Your task to perform on an android device: turn pop-ups off in chrome Image 0: 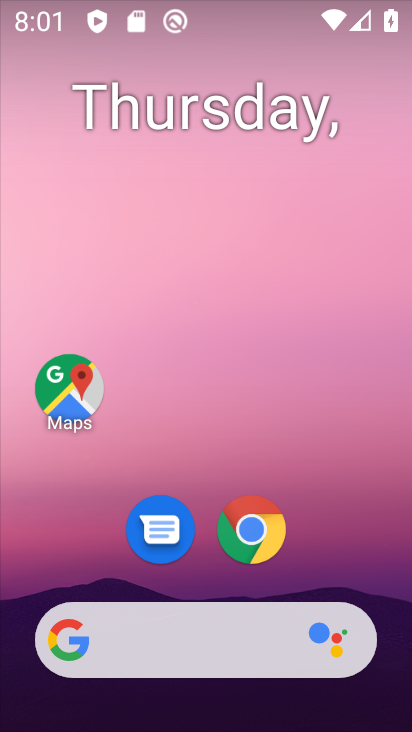
Step 0: press home button
Your task to perform on an android device: turn pop-ups off in chrome Image 1: 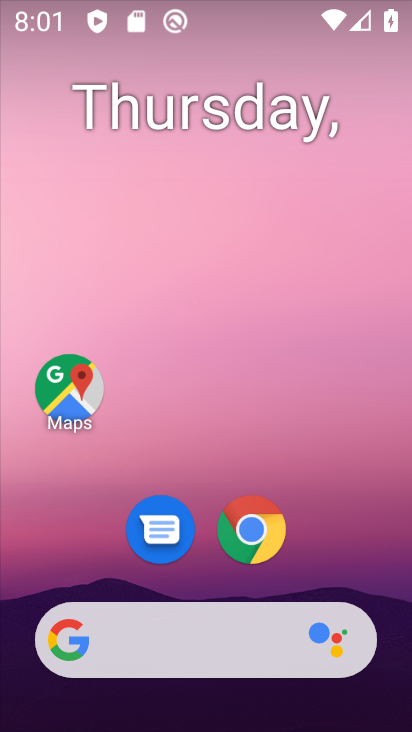
Step 1: click (257, 541)
Your task to perform on an android device: turn pop-ups off in chrome Image 2: 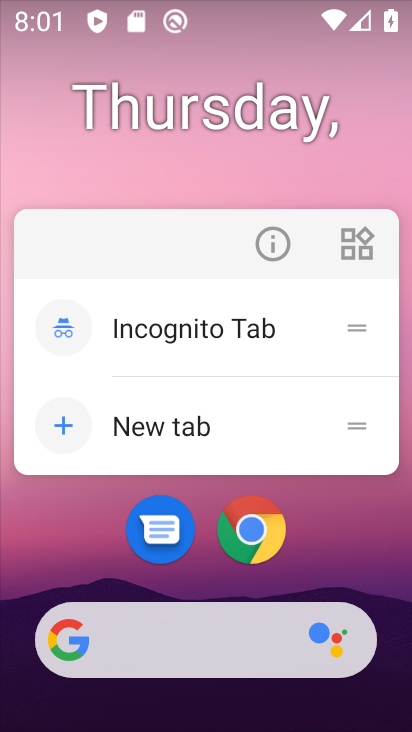
Step 2: click (253, 547)
Your task to perform on an android device: turn pop-ups off in chrome Image 3: 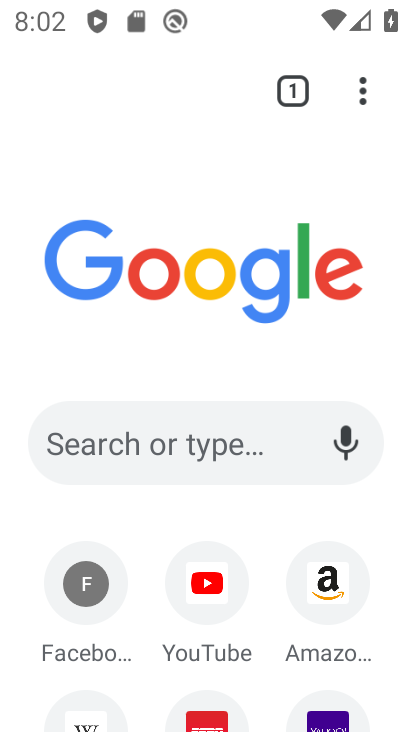
Step 3: drag from (360, 99) to (258, 545)
Your task to perform on an android device: turn pop-ups off in chrome Image 4: 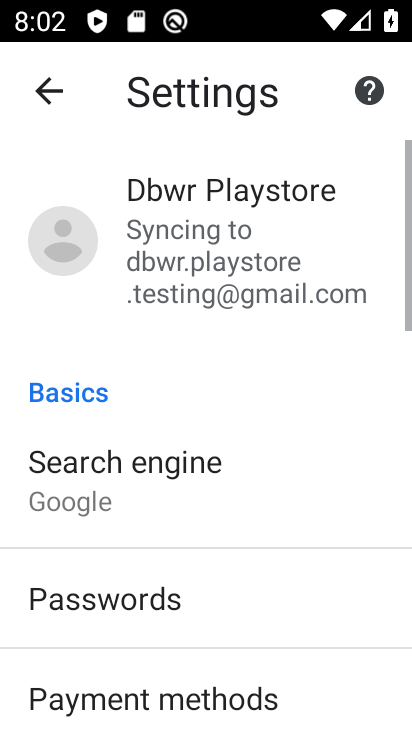
Step 4: drag from (238, 654) to (328, 72)
Your task to perform on an android device: turn pop-ups off in chrome Image 5: 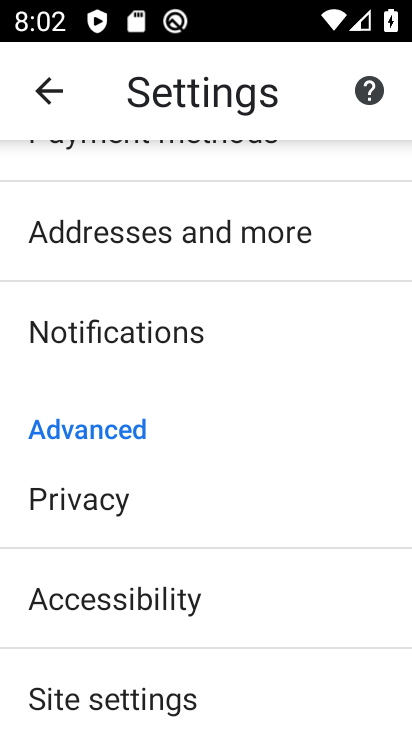
Step 5: drag from (255, 313) to (276, 186)
Your task to perform on an android device: turn pop-ups off in chrome Image 6: 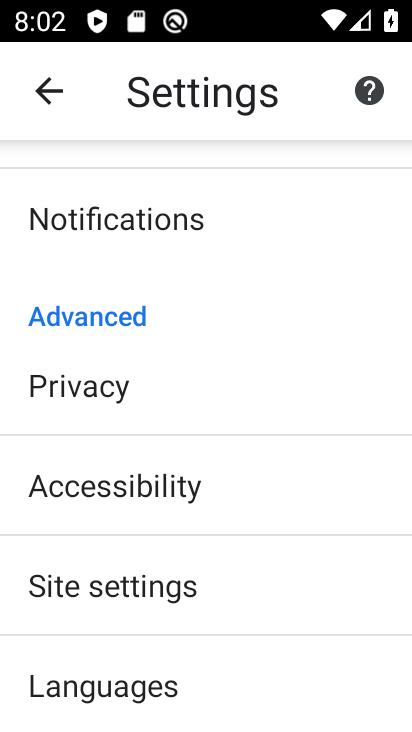
Step 6: click (152, 577)
Your task to perform on an android device: turn pop-ups off in chrome Image 7: 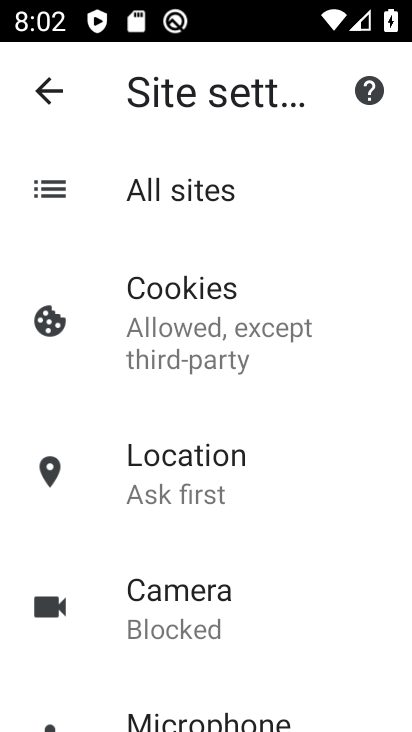
Step 7: drag from (274, 639) to (343, 113)
Your task to perform on an android device: turn pop-ups off in chrome Image 8: 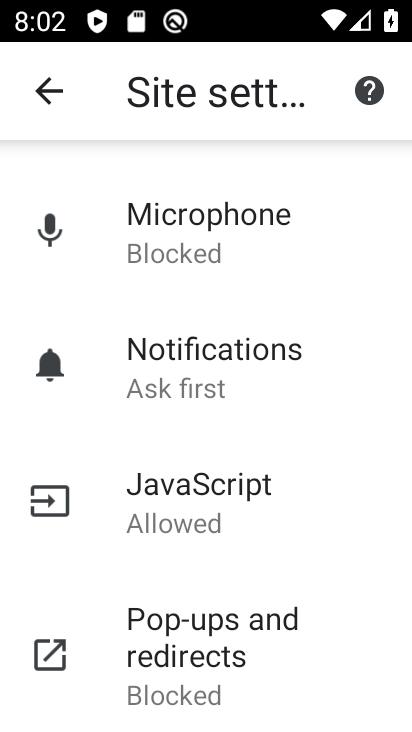
Step 8: click (218, 629)
Your task to perform on an android device: turn pop-ups off in chrome Image 9: 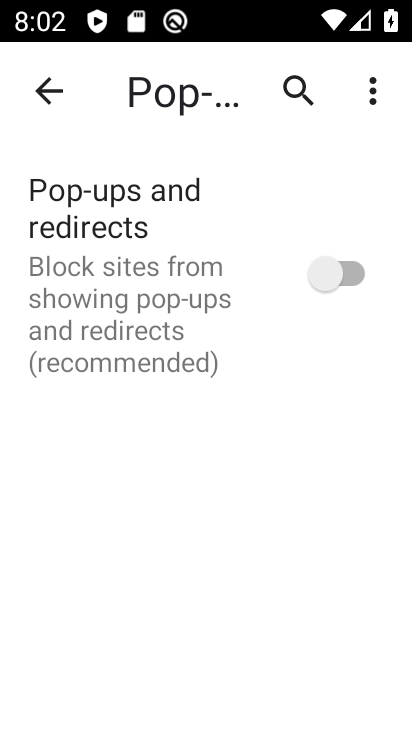
Step 9: click (359, 270)
Your task to perform on an android device: turn pop-ups off in chrome Image 10: 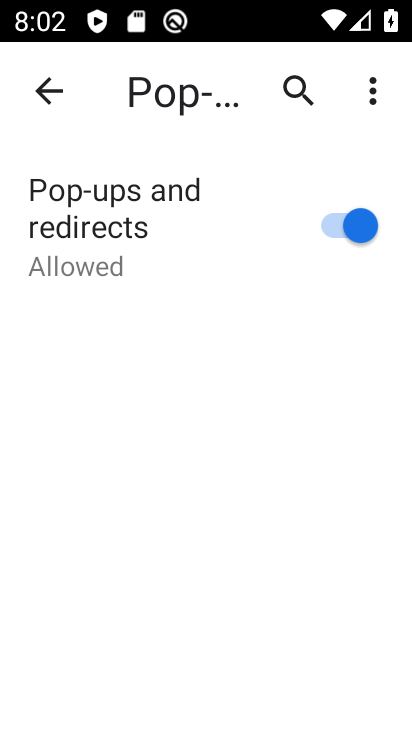
Step 10: task complete